Your task to perform on an android device: Set the phone to "Do not disturb". Image 0: 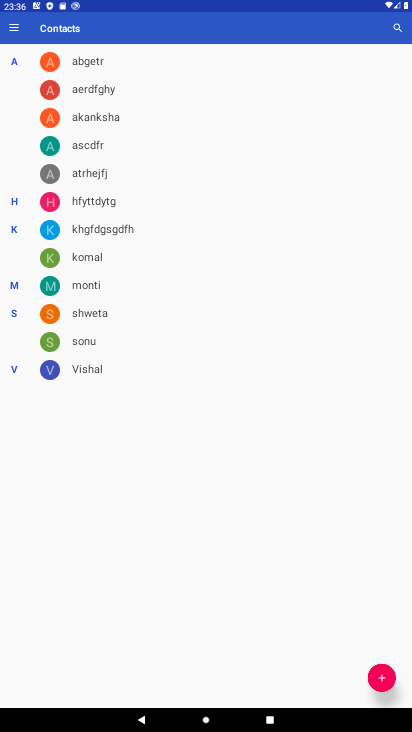
Step 0: press home button
Your task to perform on an android device: Set the phone to "Do not disturb". Image 1: 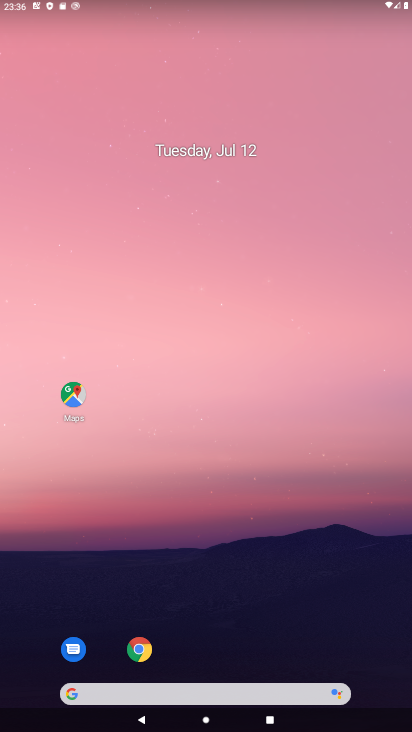
Step 1: drag from (377, 658) to (329, 111)
Your task to perform on an android device: Set the phone to "Do not disturb". Image 2: 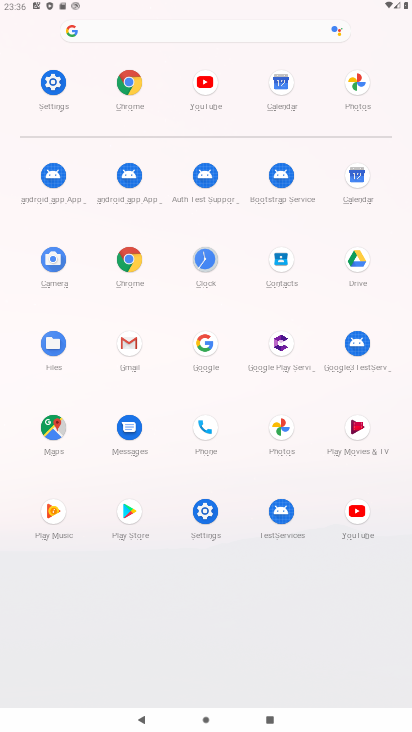
Step 2: click (204, 511)
Your task to perform on an android device: Set the phone to "Do not disturb". Image 3: 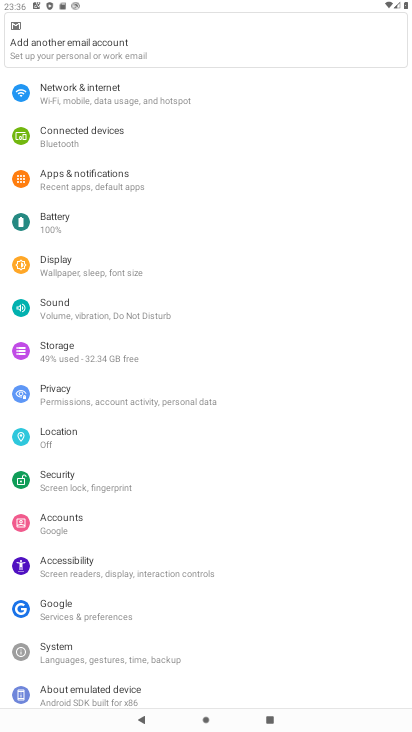
Step 3: click (59, 300)
Your task to perform on an android device: Set the phone to "Do not disturb". Image 4: 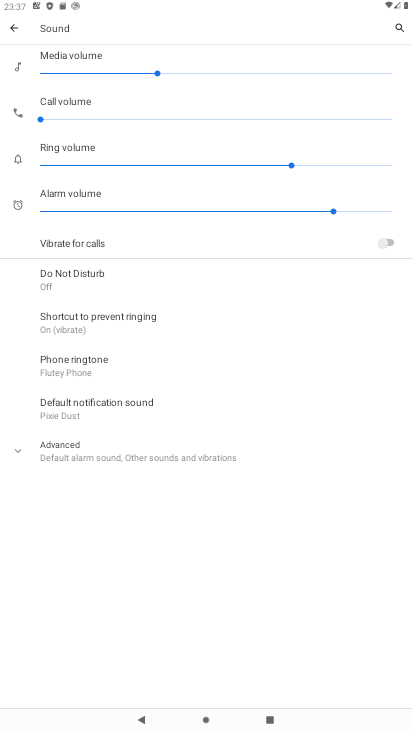
Step 4: click (47, 271)
Your task to perform on an android device: Set the phone to "Do not disturb". Image 5: 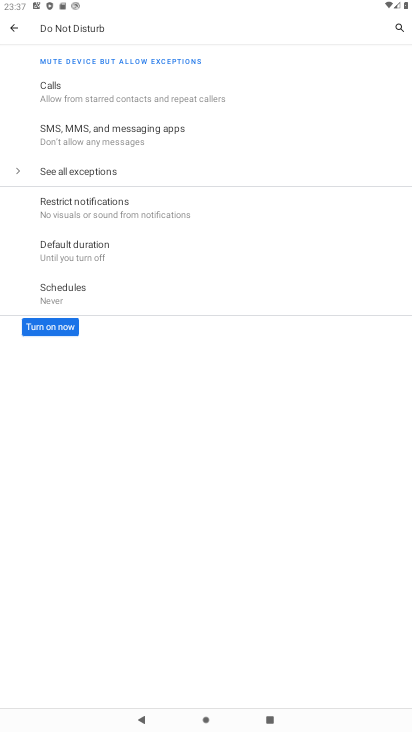
Step 5: click (52, 325)
Your task to perform on an android device: Set the phone to "Do not disturb". Image 6: 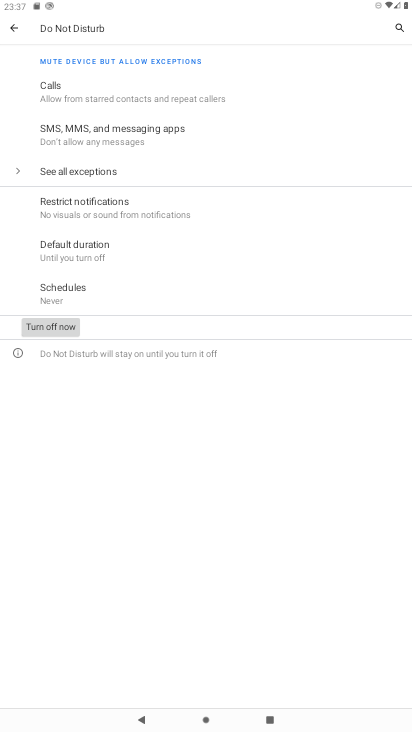
Step 6: task complete